Your task to perform on an android device: toggle notifications settings in the gmail app Image 0: 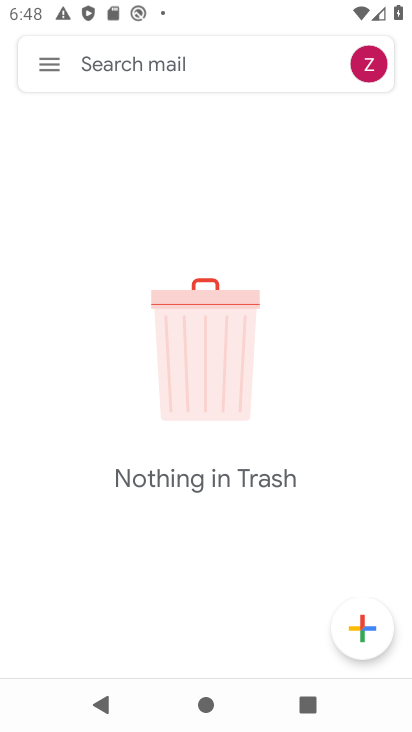
Step 0: drag from (180, 604) to (228, 191)
Your task to perform on an android device: toggle notifications settings in the gmail app Image 1: 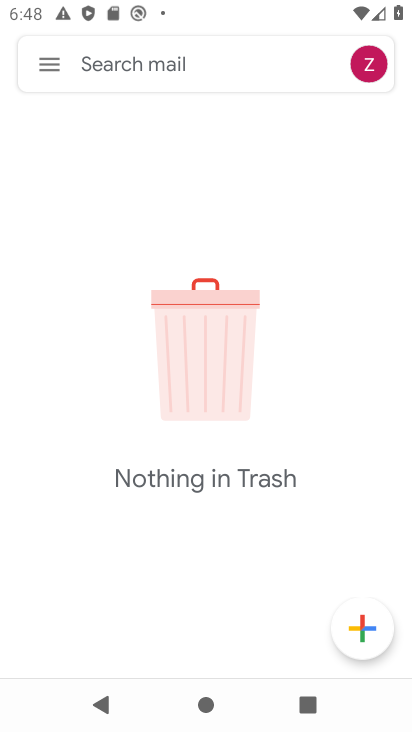
Step 1: click (58, 69)
Your task to perform on an android device: toggle notifications settings in the gmail app Image 2: 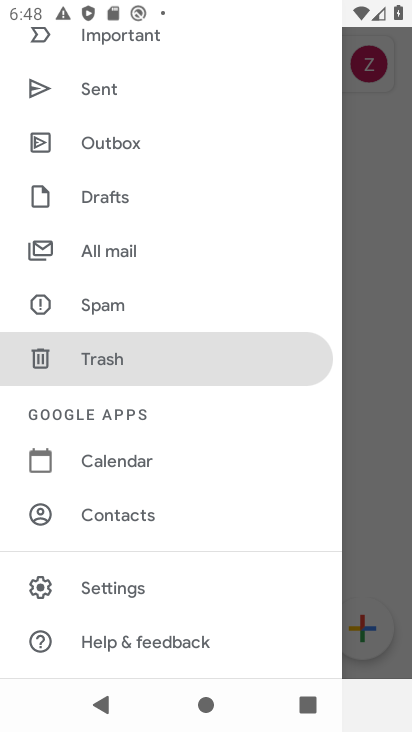
Step 2: drag from (166, 584) to (252, 198)
Your task to perform on an android device: toggle notifications settings in the gmail app Image 3: 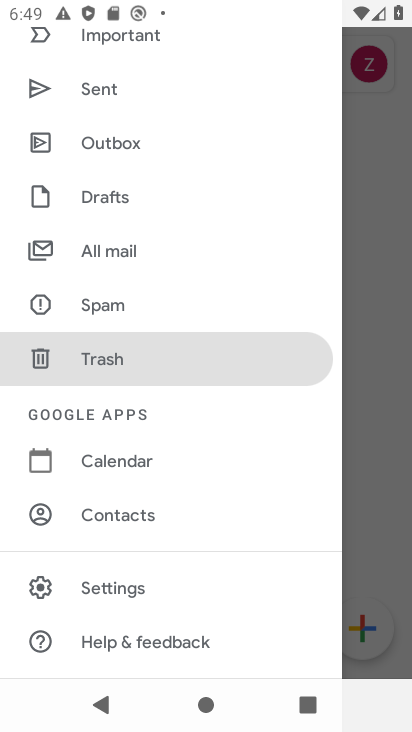
Step 3: click (136, 587)
Your task to perform on an android device: toggle notifications settings in the gmail app Image 4: 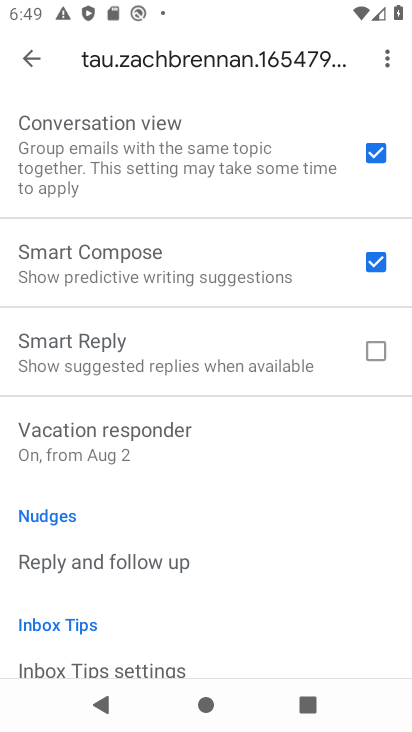
Step 4: drag from (172, 486) to (217, 248)
Your task to perform on an android device: toggle notifications settings in the gmail app Image 5: 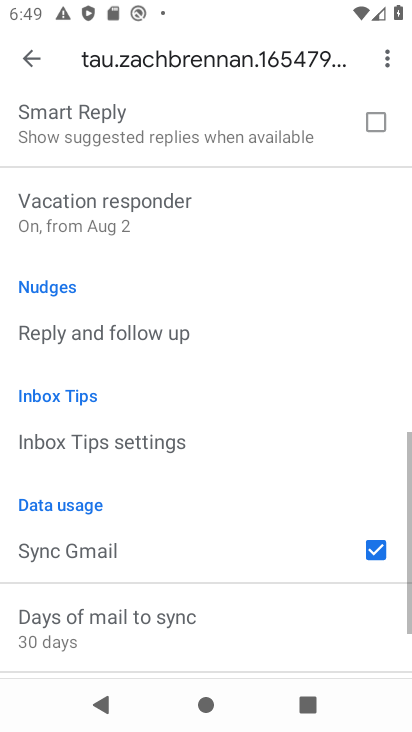
Step 5: drag from (184, 306) to (246, 615)
Your task to perform on an android device: toggle notifications settings in the gmail app Image 6: 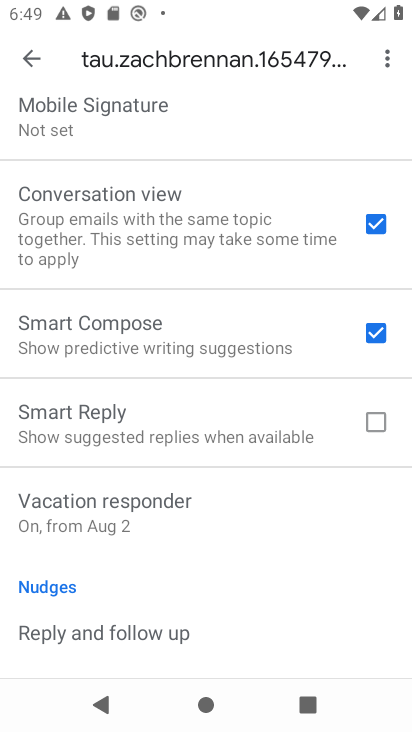
Step 6: drag from (210, 417) to (283, 678)
Your task to perform on an android device: toggle notifications settings in the gmail app Image 7: 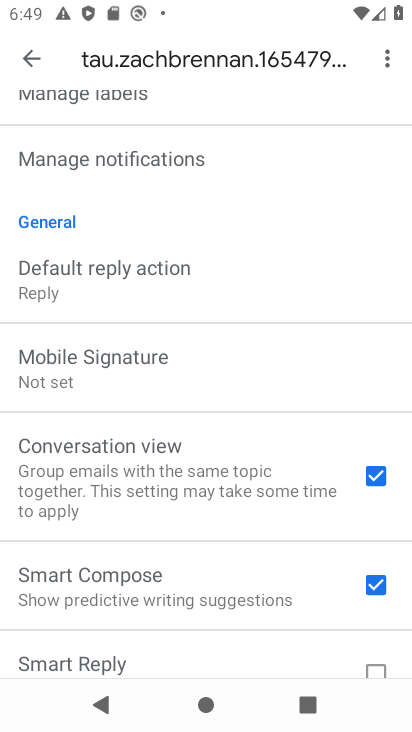
Step 7: click (245, 164)
Your task to perform on an android device: toggle notifications settings in the gmail app Image 8: 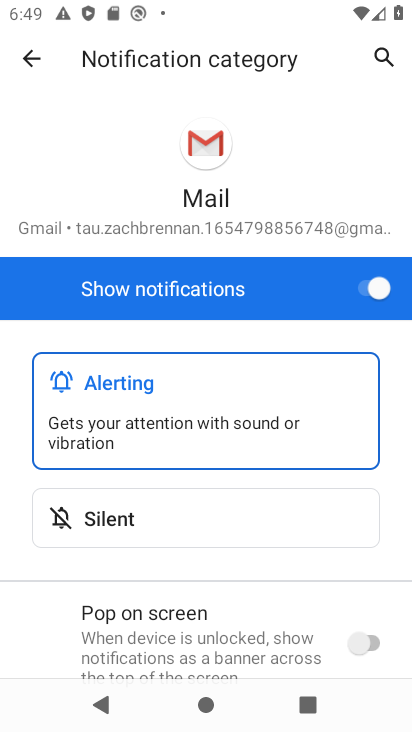
Step 8: click (376, 288)
Your task to perform on an android device: toggle notifications settings in the gmail app Image 9: 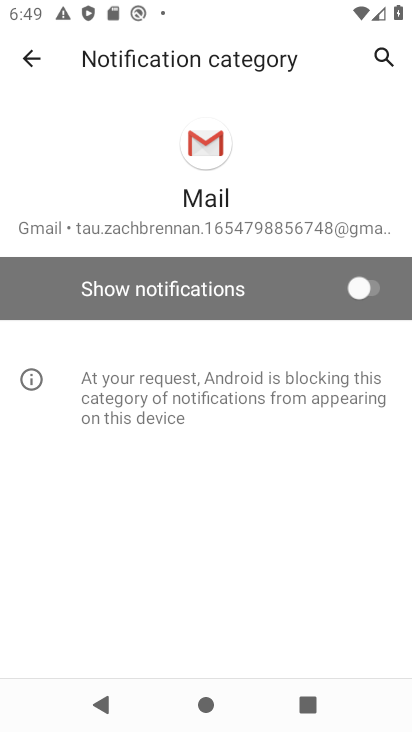
Step 9: task complete